Your task to perform on an android device: Open the stopwatch Image 0: 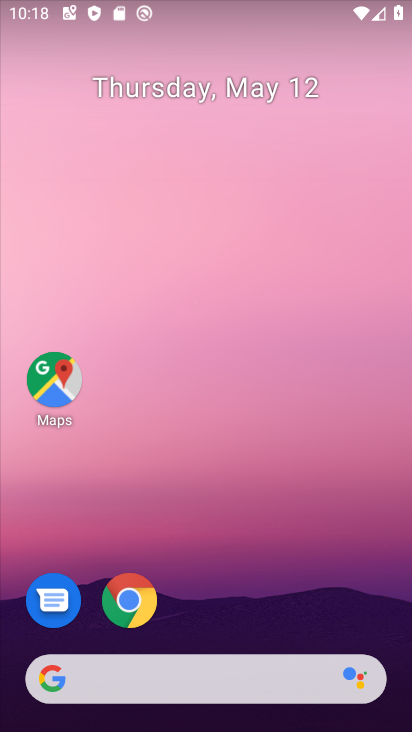
Step 0: drag from (252, 632) to (260, 146)
Your task to perform on an android device: Open the stopwatch Image 1: 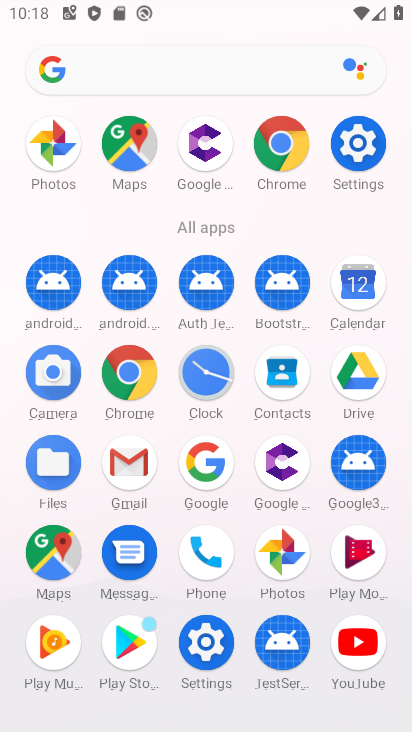
Step 1: click (205, 388)
Your task to perform on an android device: Open the stopwatch Image 2: 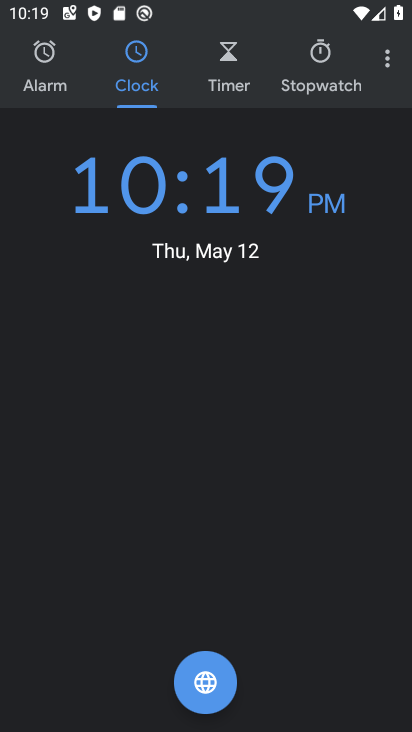
Step 2: click (328, 69)
Your task to perform on an android device: Open the stopwatch Image 3: 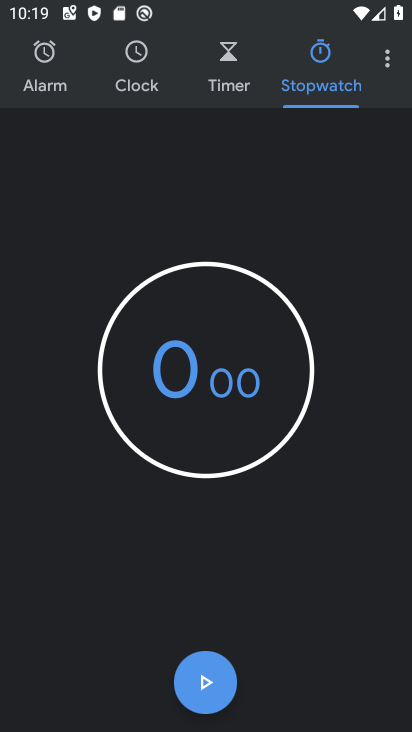
Step 3: click (190, 679)
Your task to perform on an android device: Open the stopwatch Image 4: 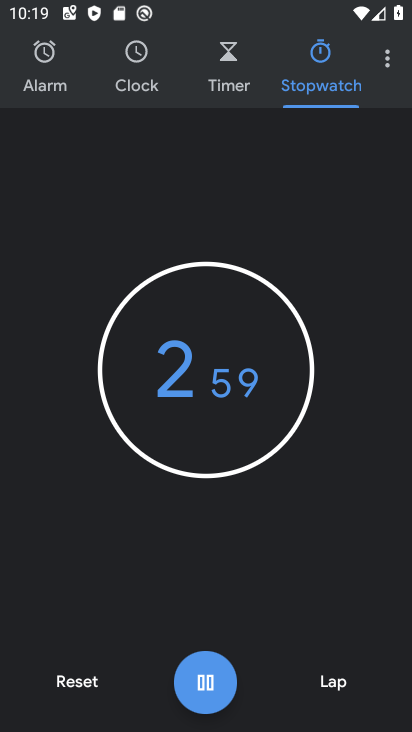
Step 4: task complete